Your task to perform on an android device: open chrome privacy settings Image 0: 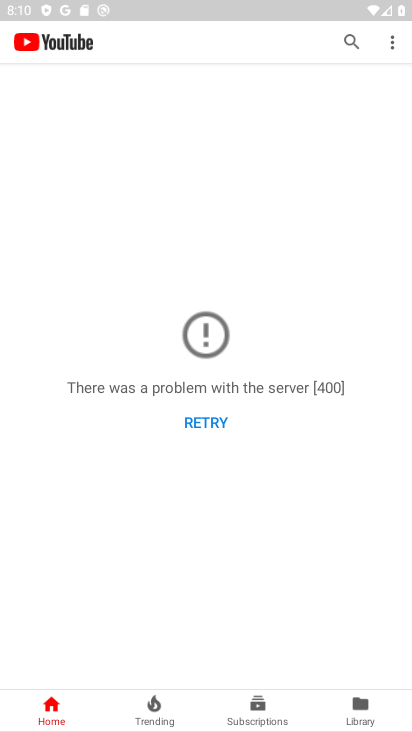
Step 0: press home button
Your task to perform on an android device: open chrome privacy settings Image 1: 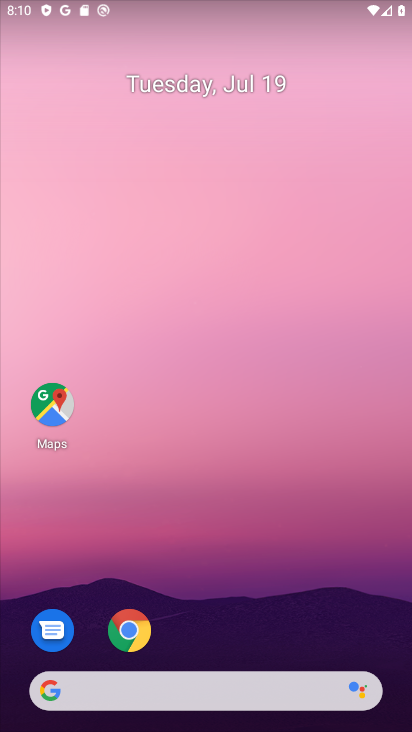
Step 1: click (124, 641)
Your task to perform on an android device: open chrome privacy settings Image 2: 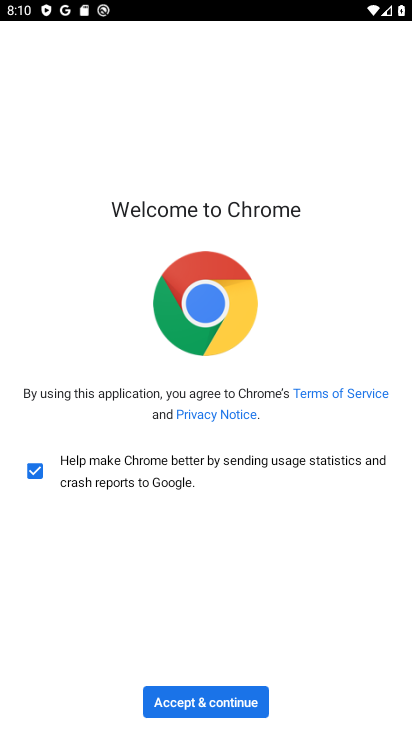
Step 2: click (223, 693)
Your task to perform on an android device: open chrome privacy settings Image 3: 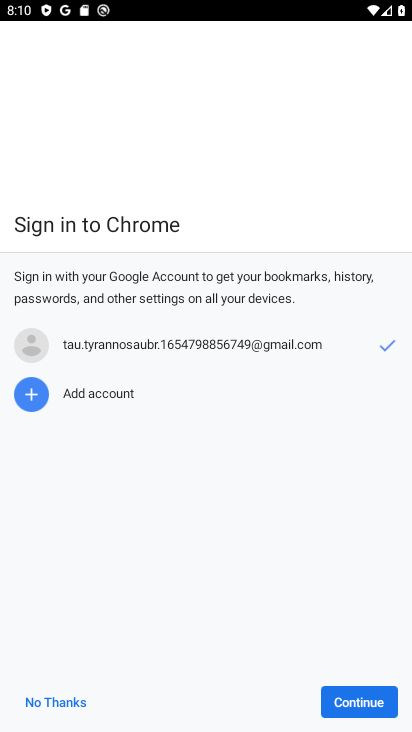
Step 3: click (344, 700)
Your task to perform on an android device: open chrome privacy settings Image 4: 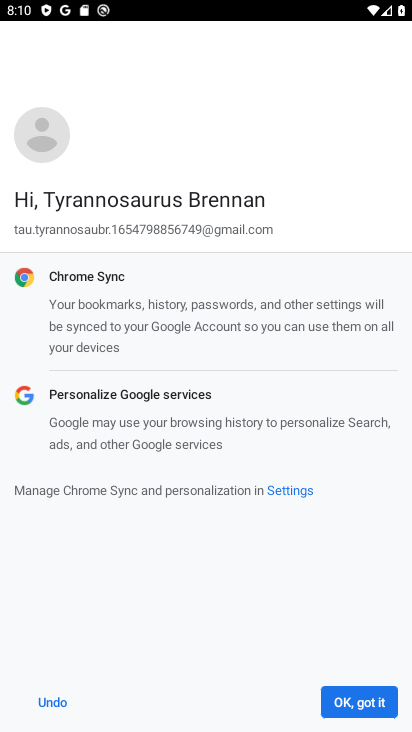
Step 4: click (344, 700)
Your task to perform on an android device: open chrome privacy settings Image 5: 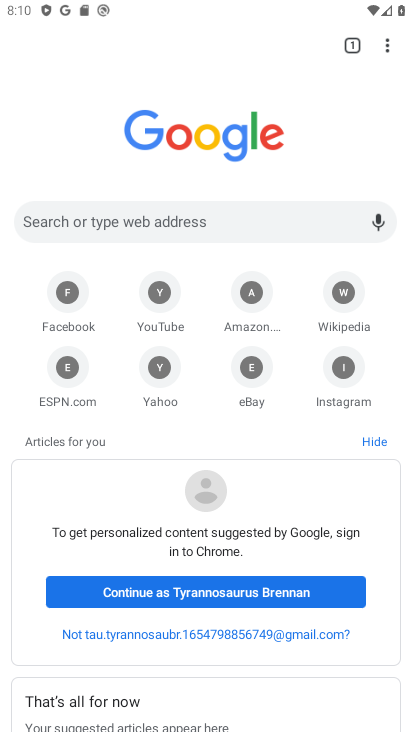
Step 5: click (384, 48)
Your task to perform on an android device: open chrome privacy settings Image 6: 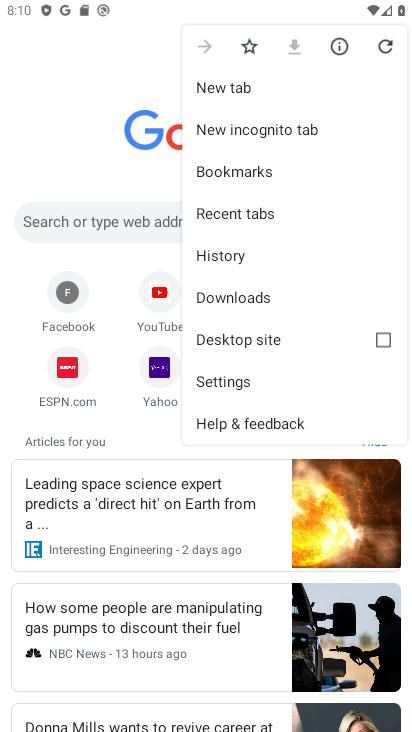
Step 6: click (270, 386)
Your task to perform on an android device: open chrome privacy settings Image 7: 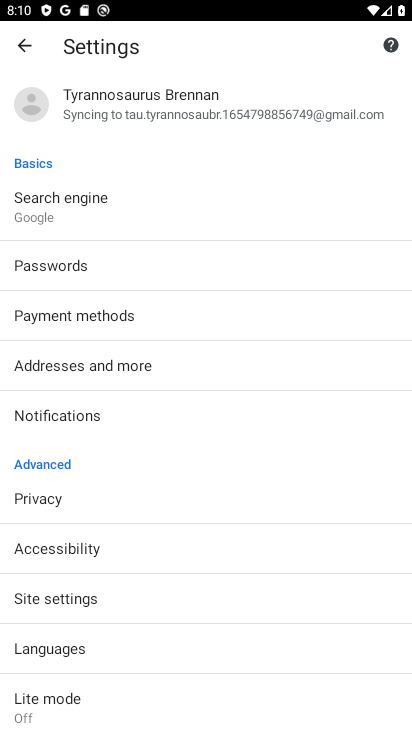
Step 7: click (51, 506)
Your task to perform on an android device: open chrome privacy settings Image 8: 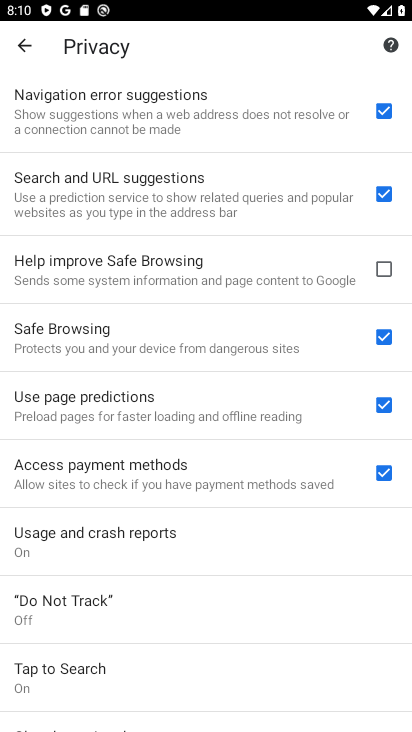
Step 8: task complete